Your task to perform on an android device: open chrome privacy settings Image 0: 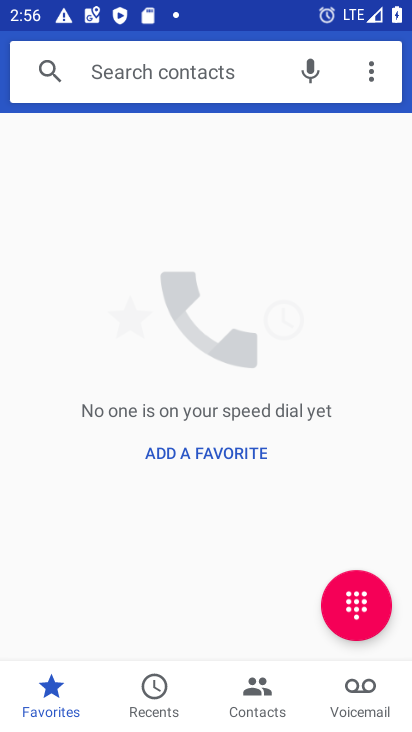
Step 0: press home button
Your task to perform on an android device: open chrome privacy settings Image 1: 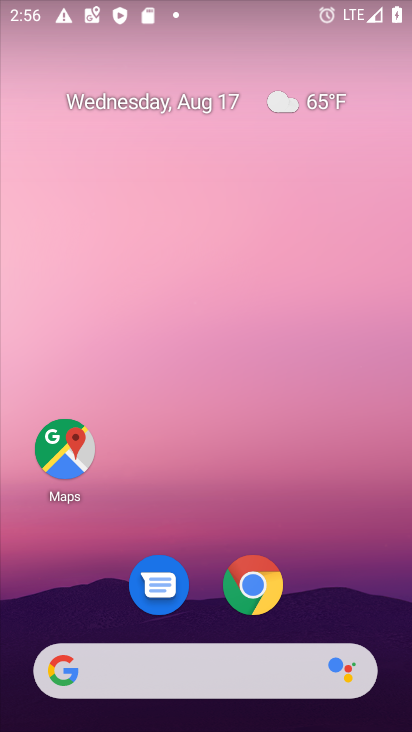
Step 1: click (249, 584)
Your task to perform on an android device: open chrome privacy settings Image 2: 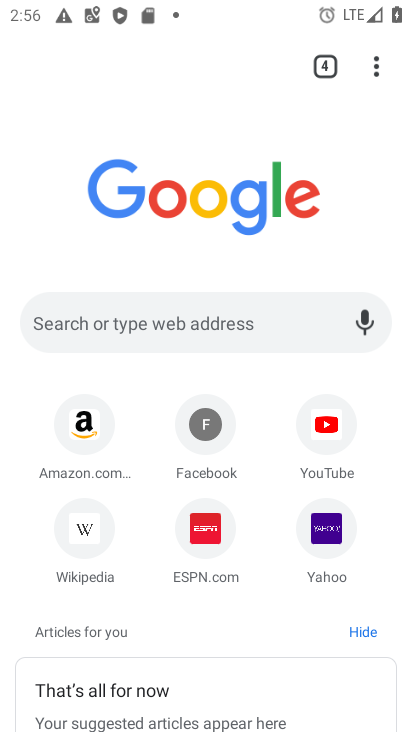
Step 2: click (371, 68)
Your task to perform on an android device: open chrome privacy settings Image 3: 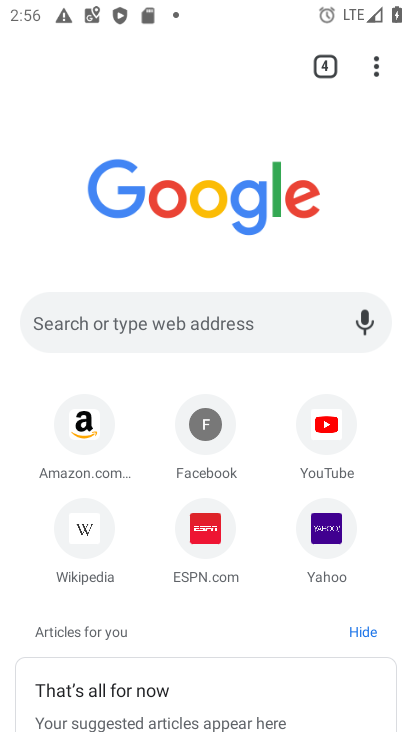
Step 3: click (371, 69)
Your task to perform on an android device: open chrome privacy settings Image 4: 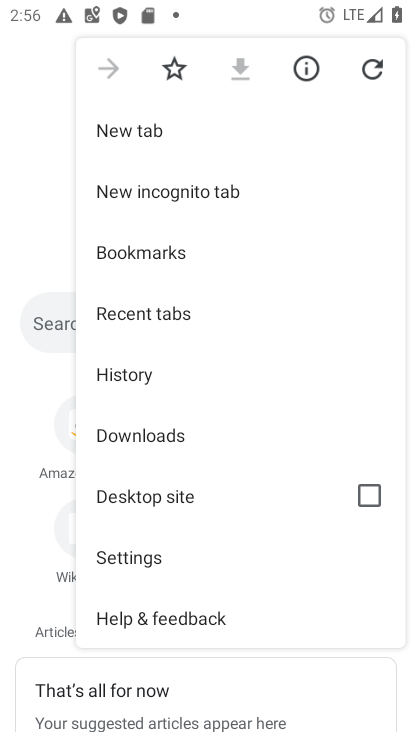
Step 4: click (155, 542)
Your task to perform on an android device: open chrome privacy settings Image 5: 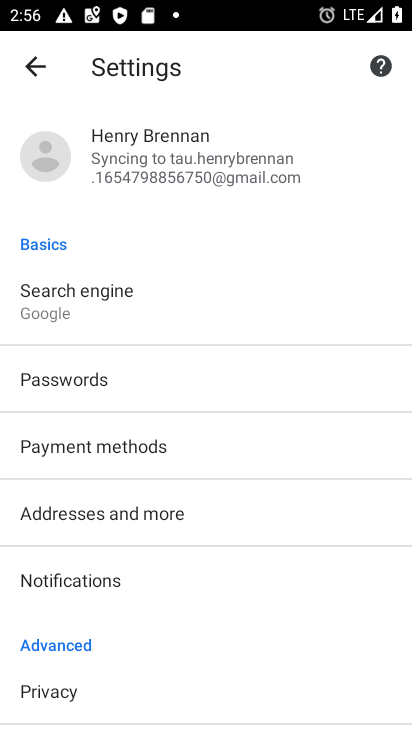
Step 5: click (59, 691)
Your task to perform on an android device: open chrome privacy settings Image 6: 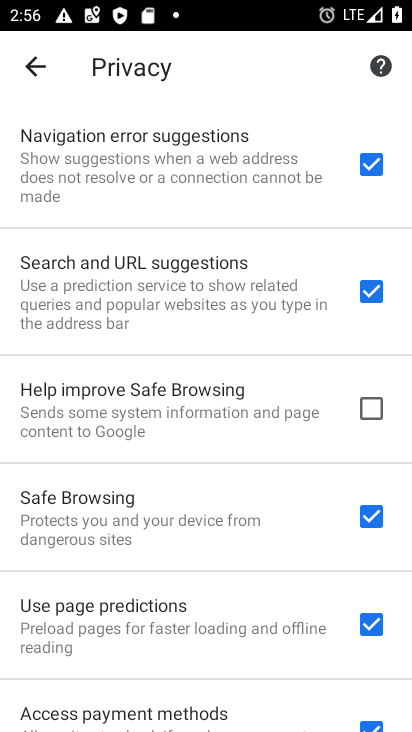
Step 6: task complete